Your task to perform on an android device: uninstall "McDonald's" Image 0: 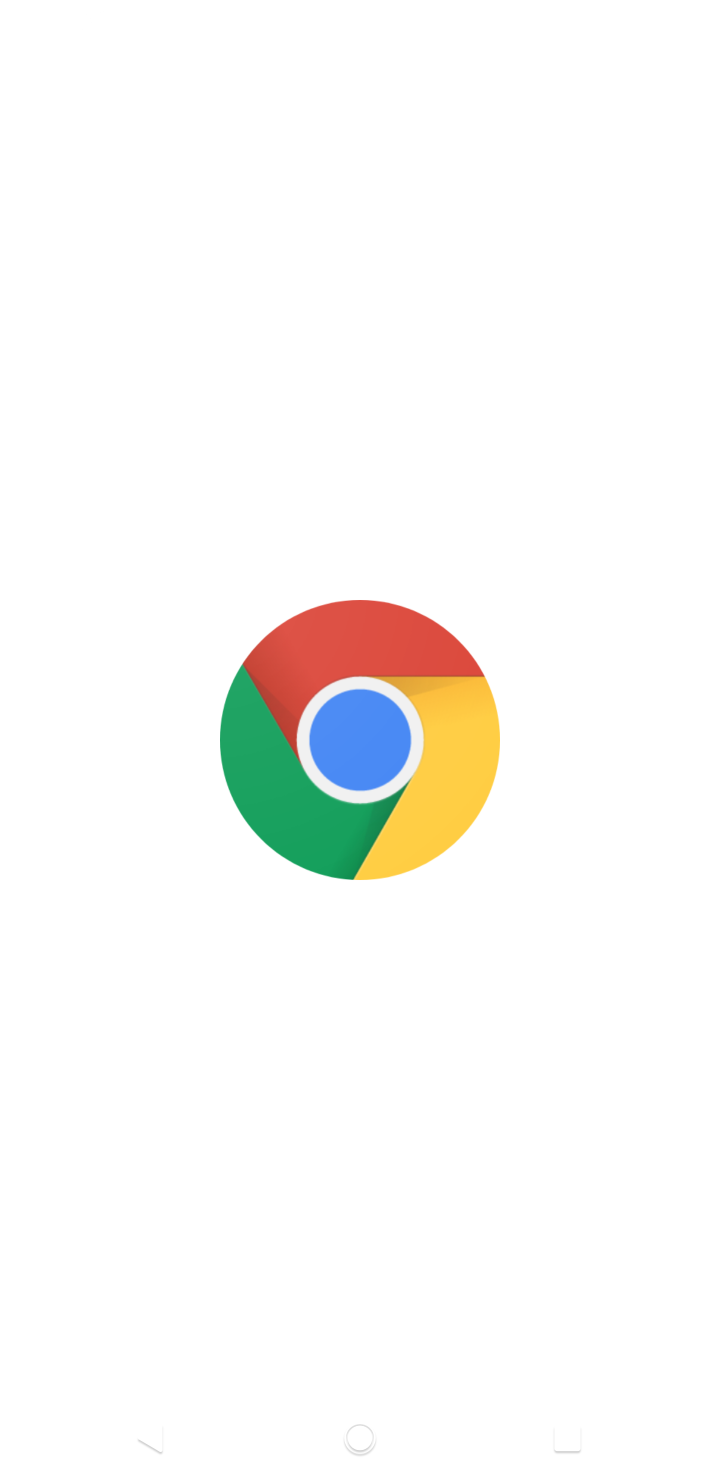
Step 0: press home button
Your task to perform on an android device: uninstall "McDonald's" Image 1: 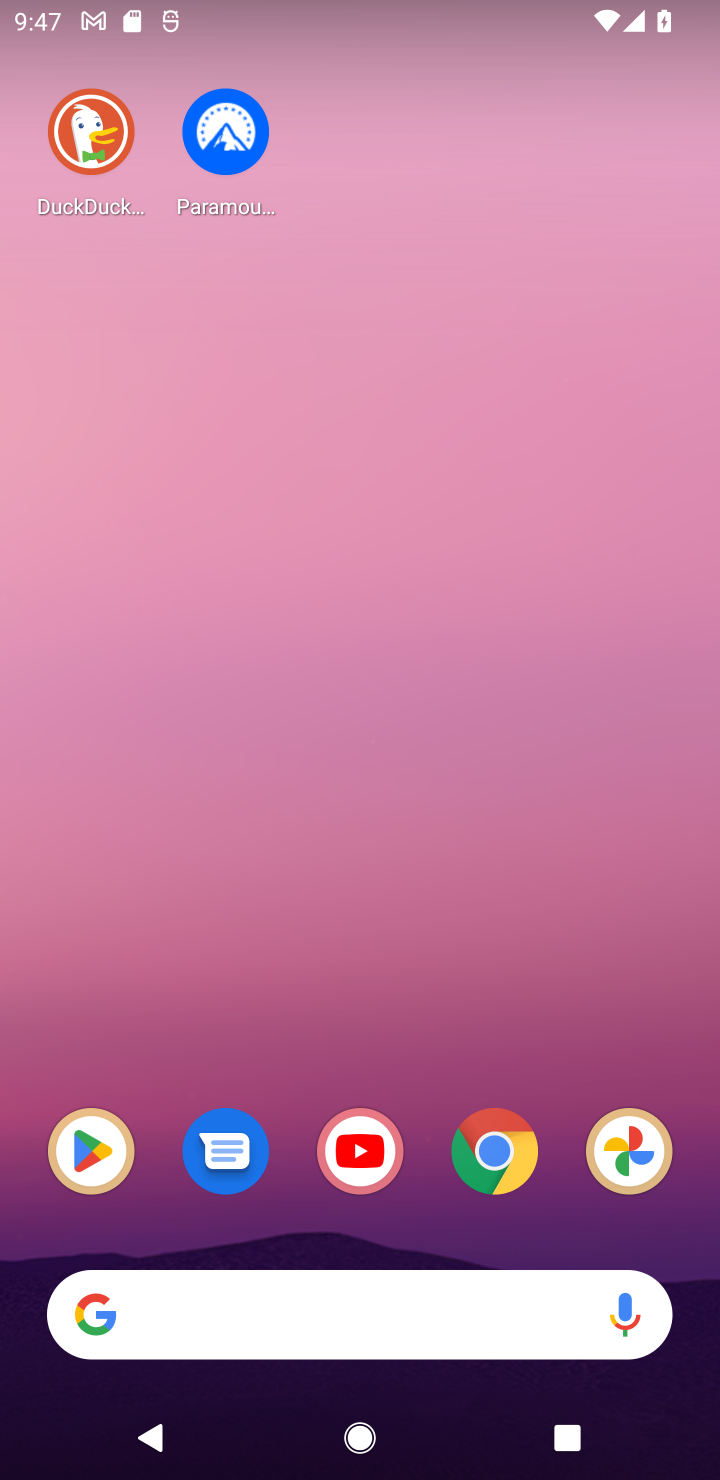
Step 1: press back button
Your task to perform on an android device: uninstall "McDonald's" Image 2: 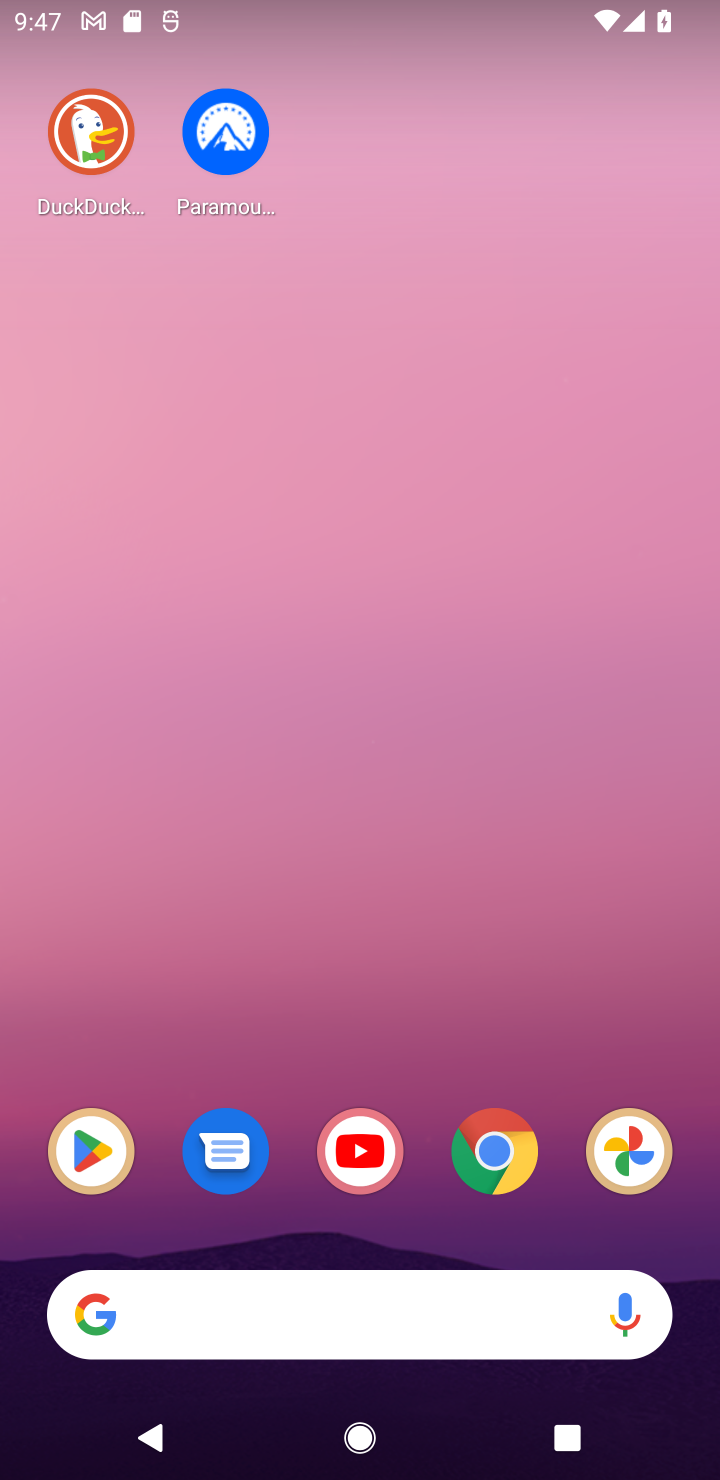
Step 2: drag from (335, 810) to (266, 25)
Your task to perform on an android device: uninstall "McDonald's" Image 3: 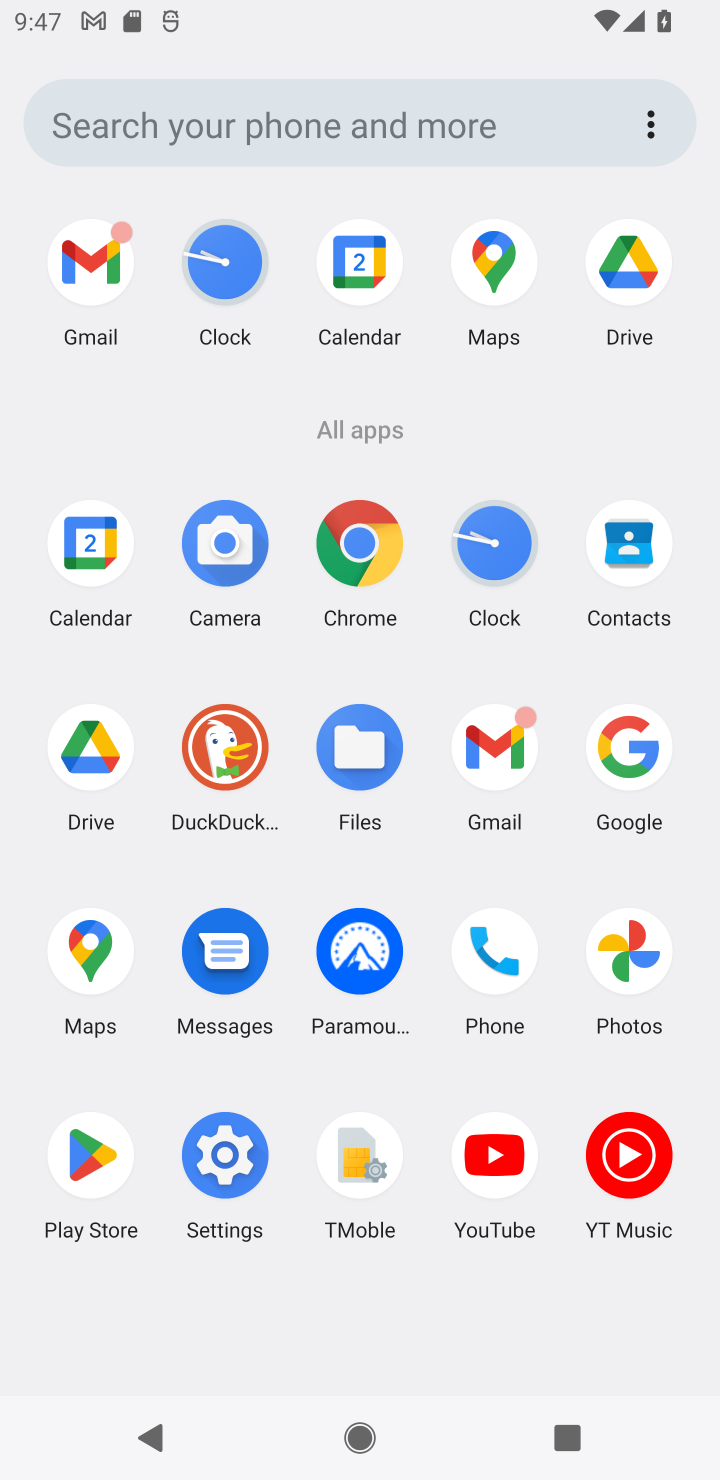
Step 3: click (97, 1136)
Your task to perform on an android device: uninstall "McDonald's" Image 4: 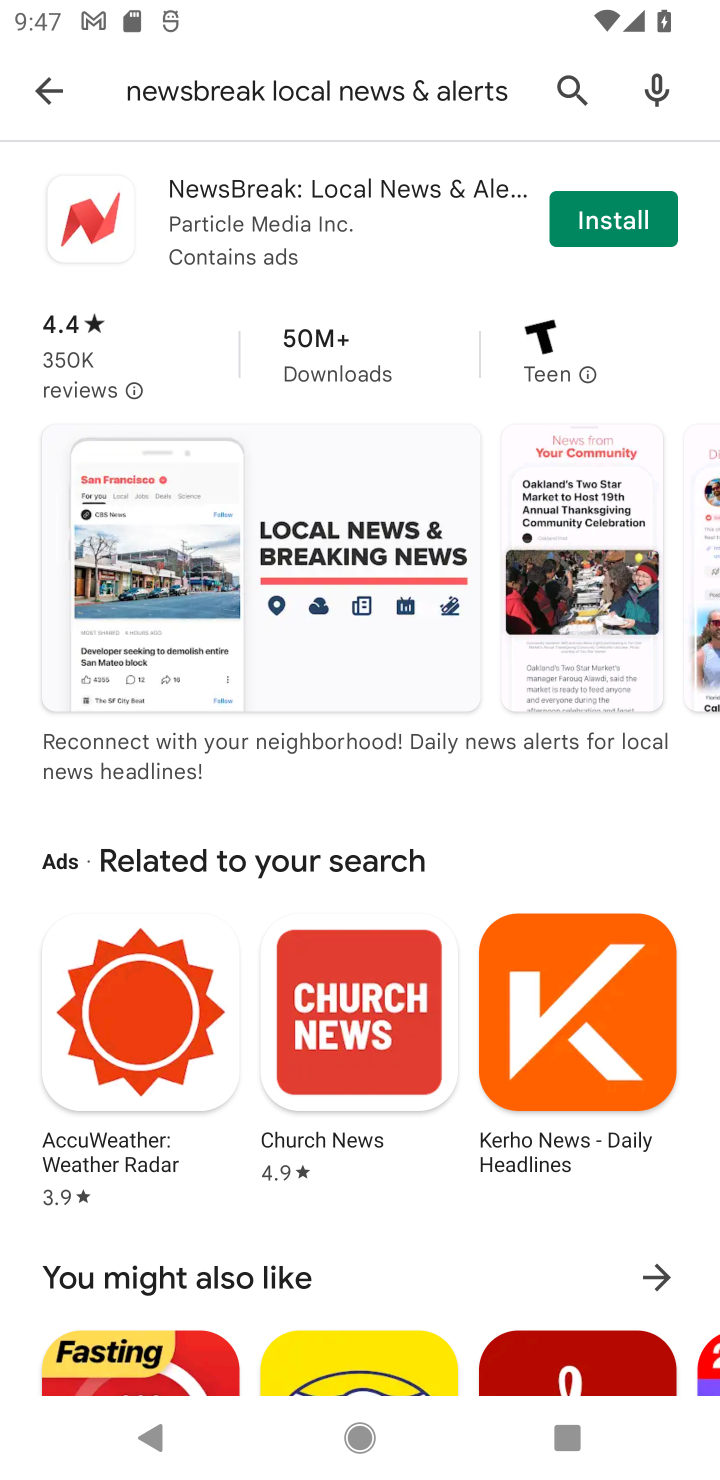
Step 4: click (46, 107)
Your task to perform on an android device: uninstall "McDonald's" Image 5: 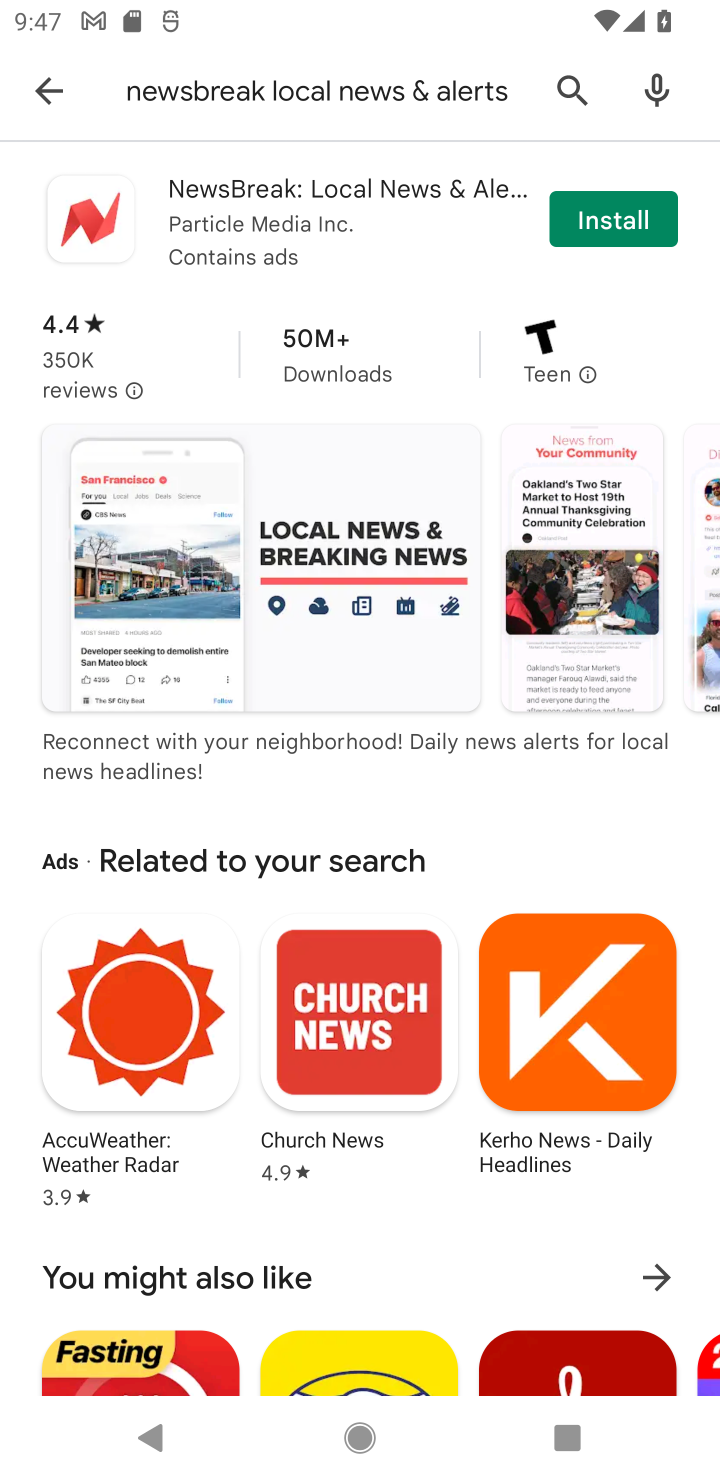
Step 5: click (43, 107)
Your task to perform on an android device: uninstall "McDonald's" Image 6: 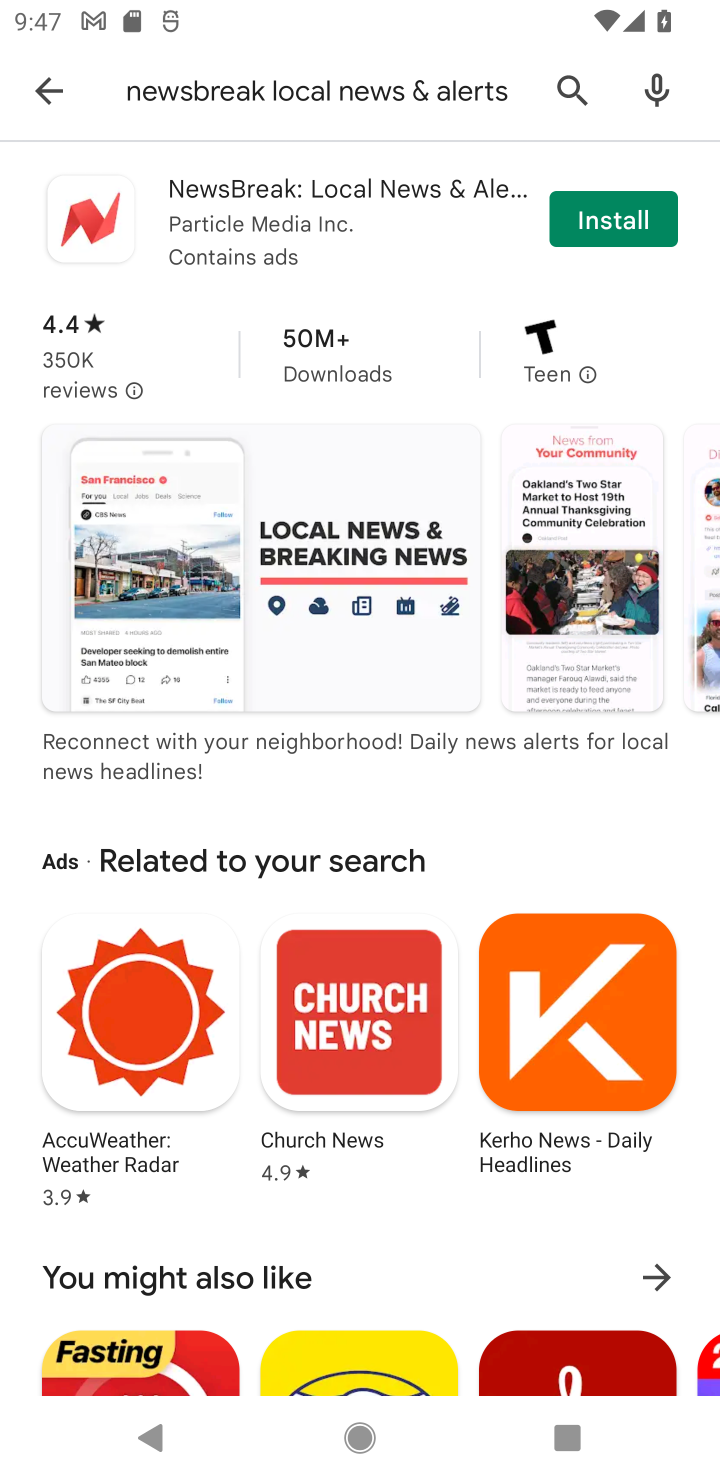
Step 6: click (579, 104)
Your task to perform on an android device: uninstall "McDonald's" Image 7: 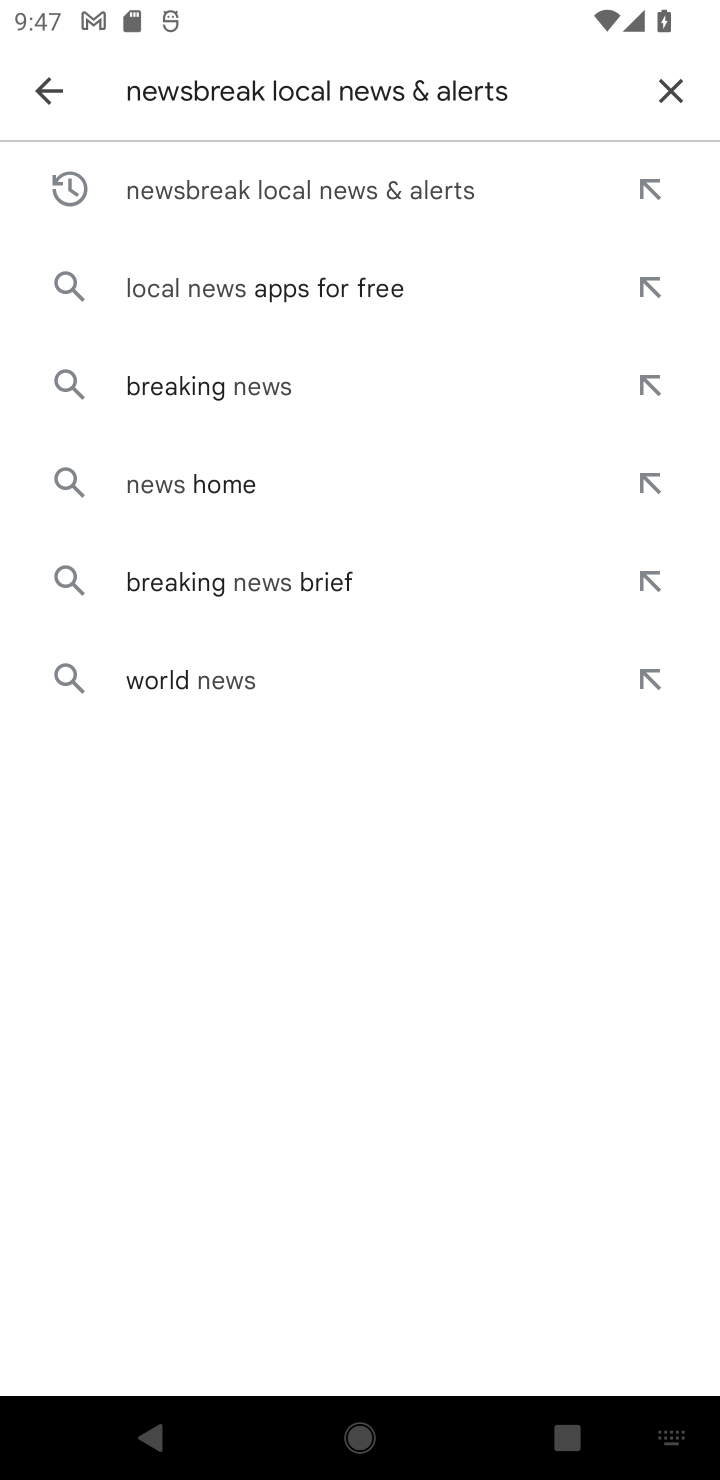
Step 7: click (663, 100)
Your task to perform on an android device: uninstall "McDonald's" Image 8: 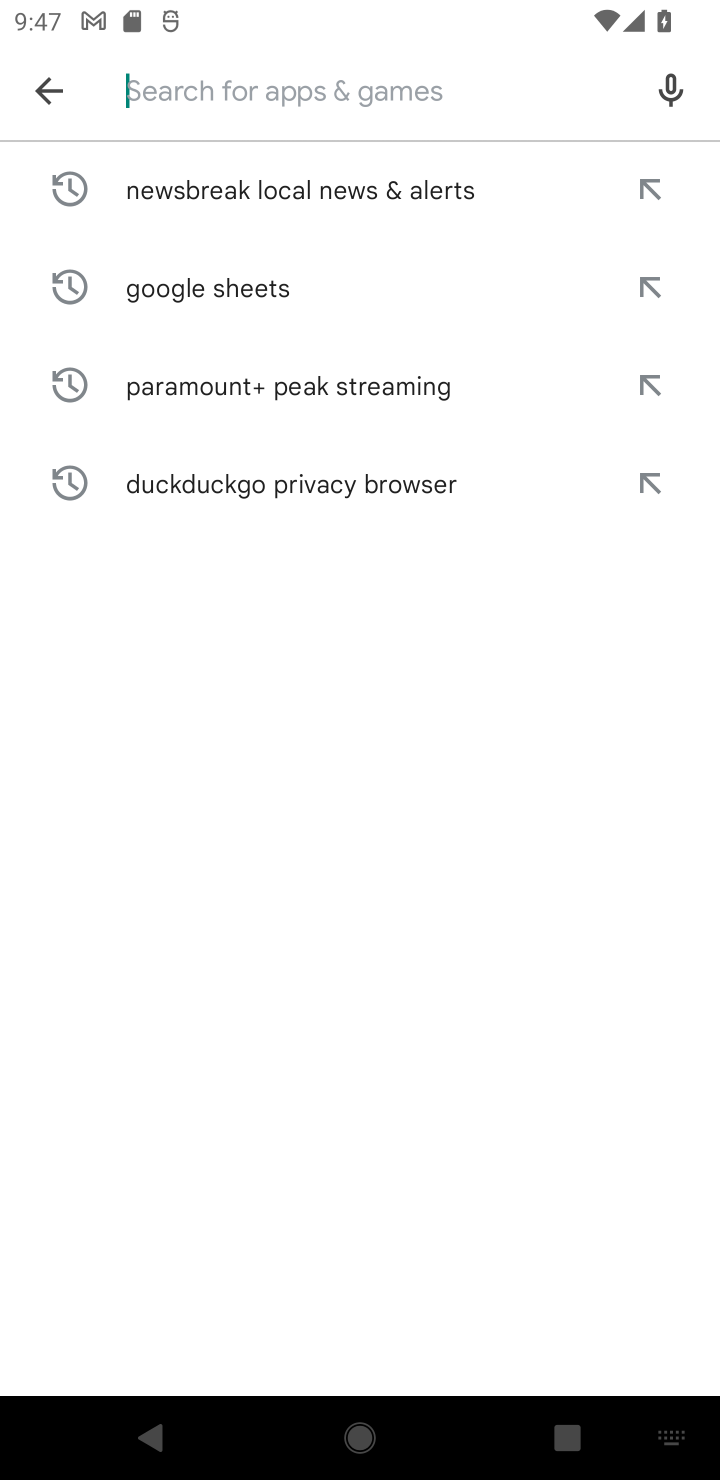
Step 8: type "McDonald's"
Your task to perform on an android device: uninstall "McDonald's" Image 9: 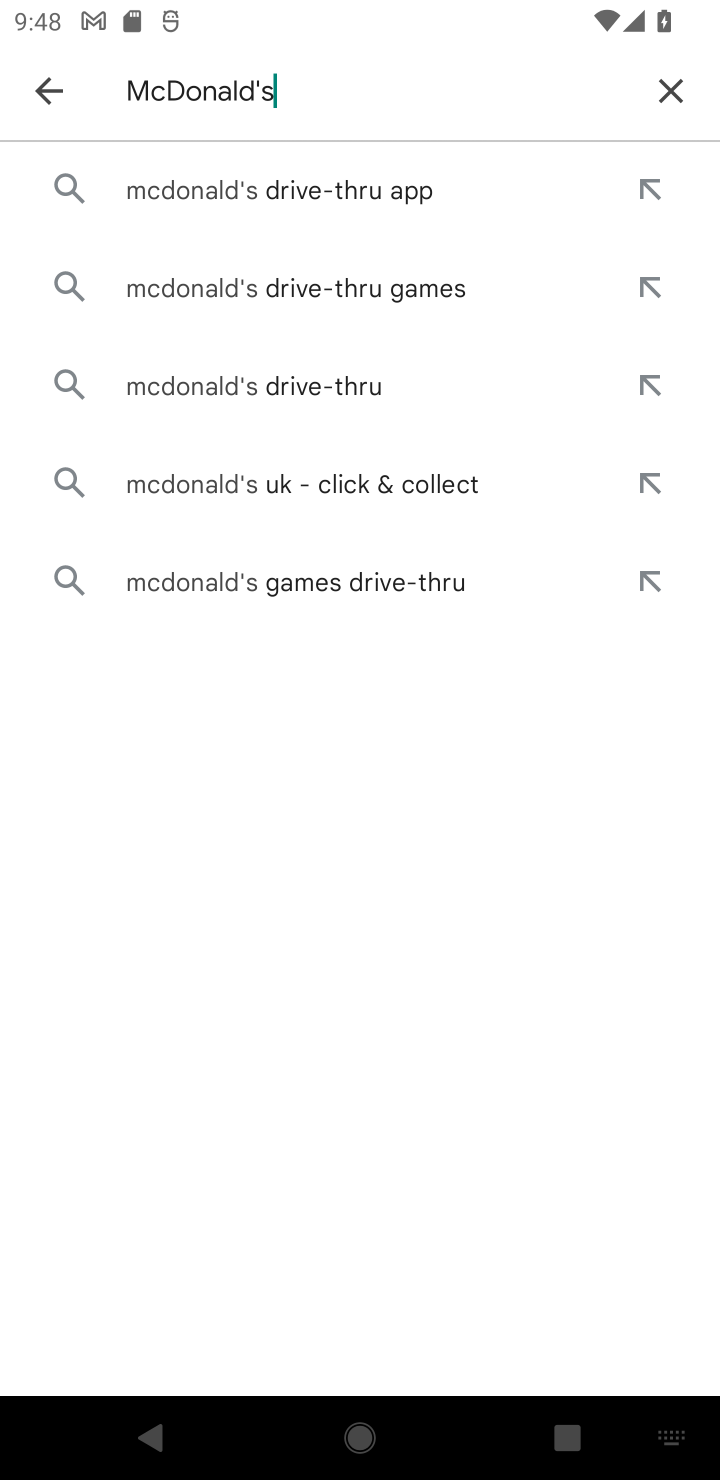
Step 9: click (126, 191)
Your task to perform on an android device: uninstall "McDonald's" Image 10: 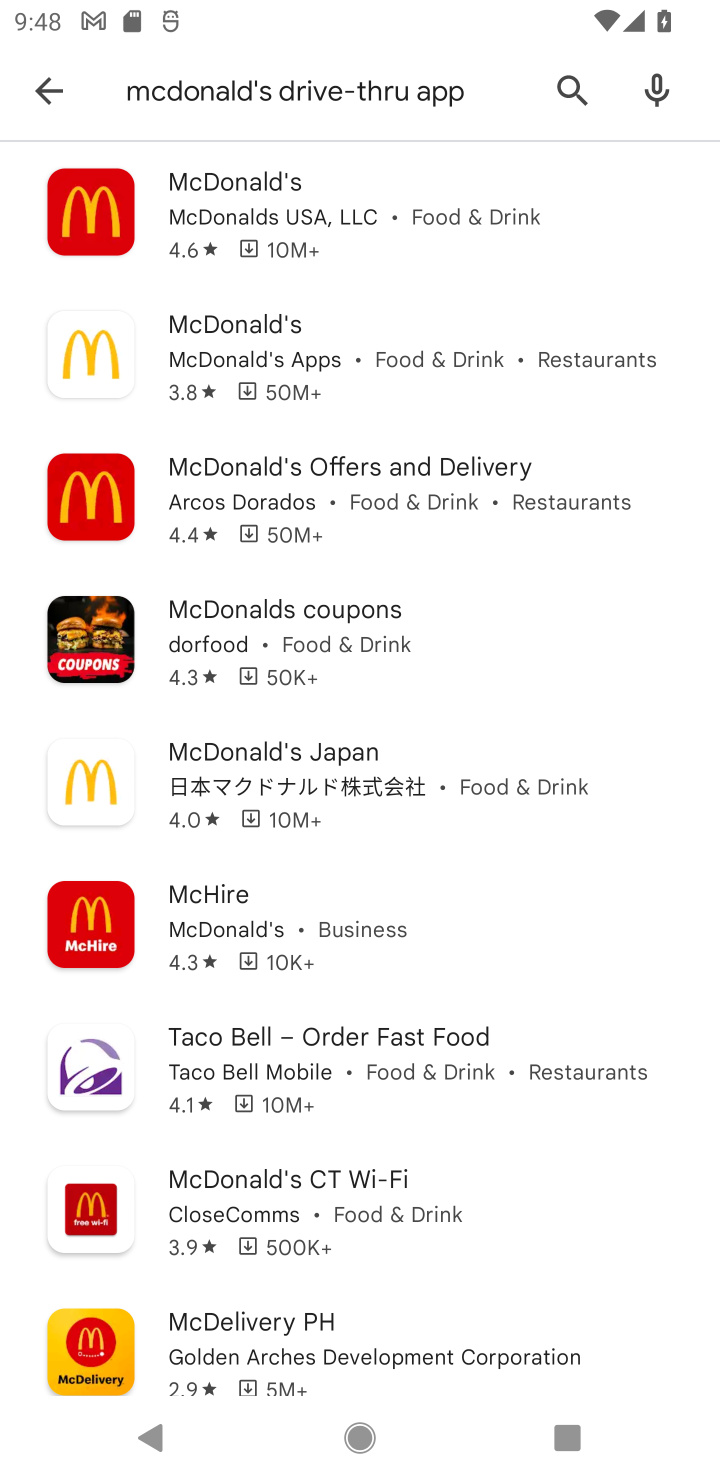
Step 10: click (120, 207)
Your task to perform on an android device: uninstall "McDonald's" Image 11: 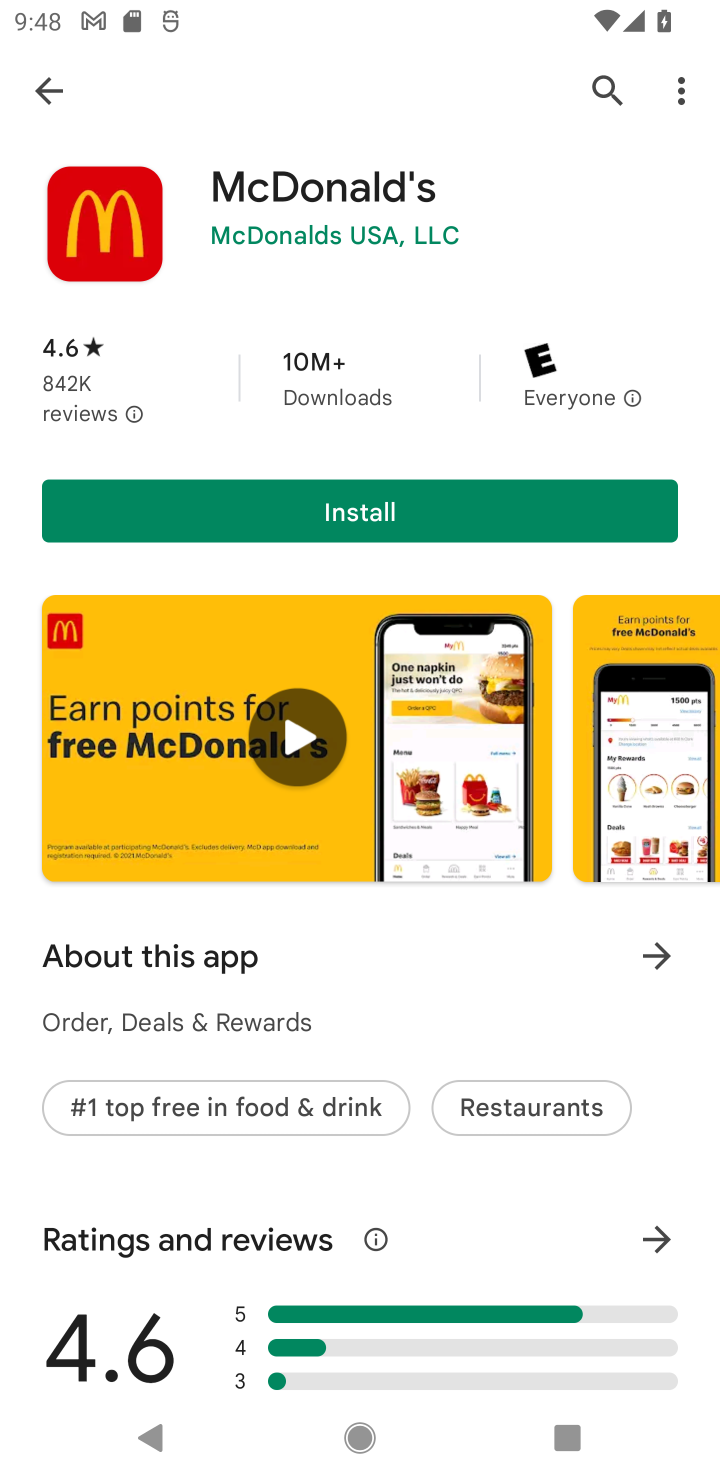
Step 11: task complete